Your task to perform on an android device: Go to accessibility settings Image 0: 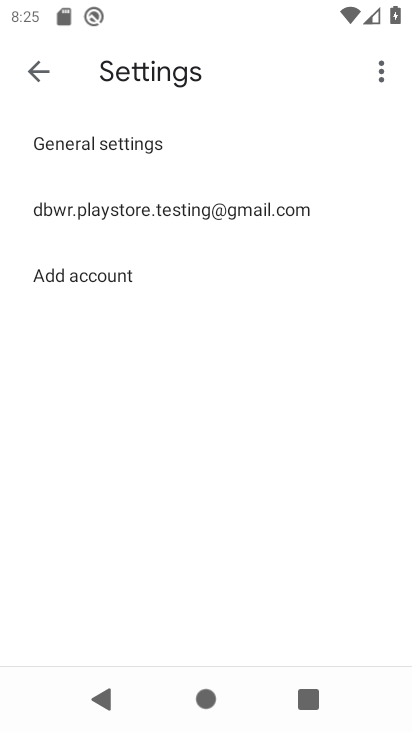
Step 0: press home button
Your task to perform on an android device: Go to accessibility settings Image 1: 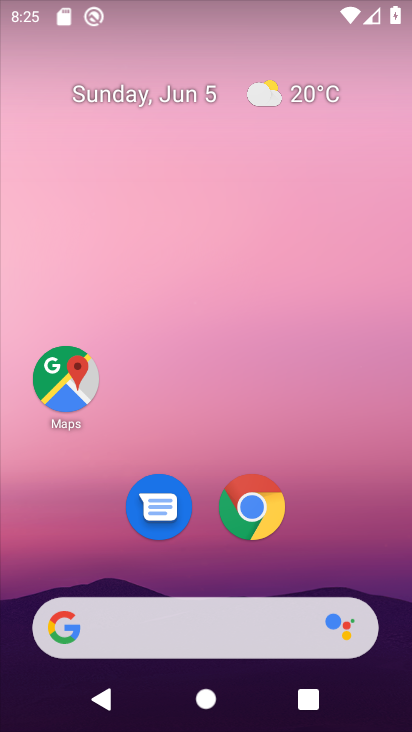
Step 1: drag from (181, 567) to (126, 111)
Your task to perform on an android device: Go to accessibility settings Image 2: 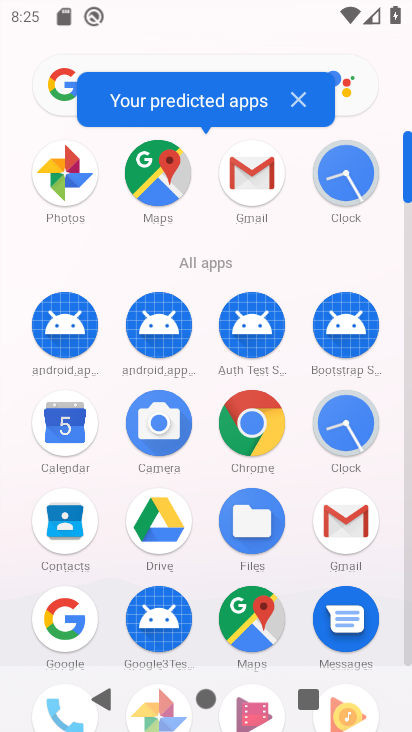
Step 2: drag from (213, 574) to (209, 11)
Your task to perform on an android device: Go to accessibility settings Image 3: 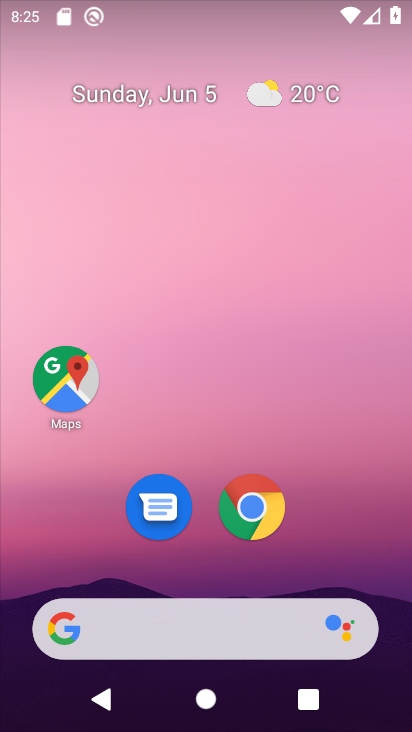
Step 3: drag from (207, 582) to (159, 21)
Your task to perform on an android device: Go to accessibility settings Image 4: 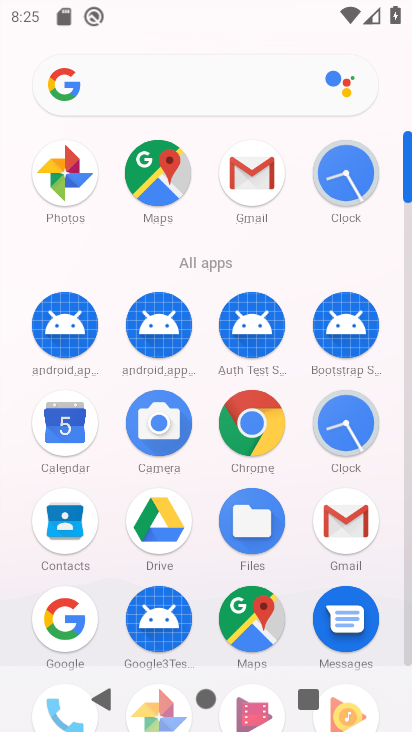
Step 4: drag from (207, 492) to (198, 6)
Your task to perform on an android device: Go to accessibility settings Image 5: 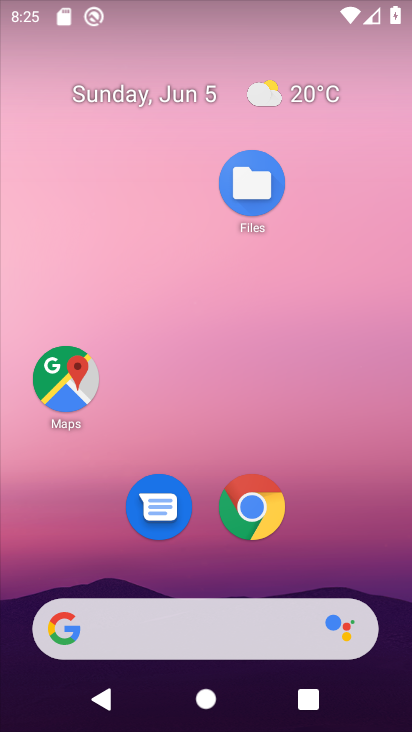
Step 5: drag from (215, 579) to (215, 10)
Your task to perform on an android device: Go to accessibility settings Image 6: 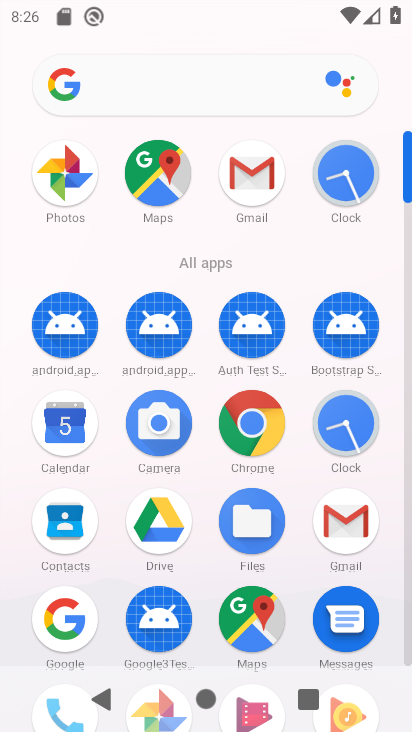
Step 6: click (407, 658)
Your task to perform on an android device: Go to accessibility settings Image 7: 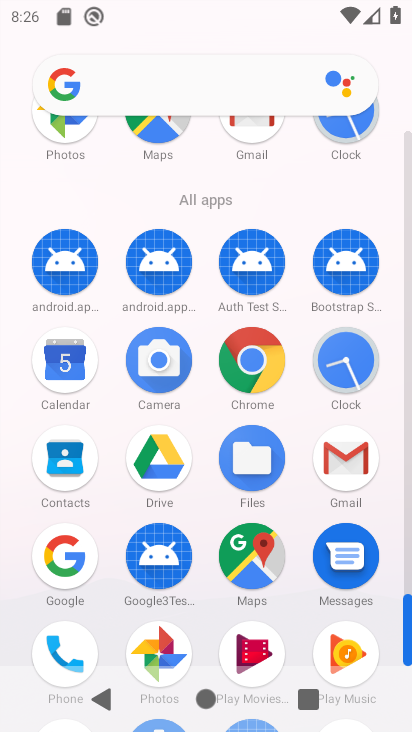
Step 7: drag from (209, 620) to (170, 225)
Your task to perform on an android device: Go to accessibility settings Image 8: 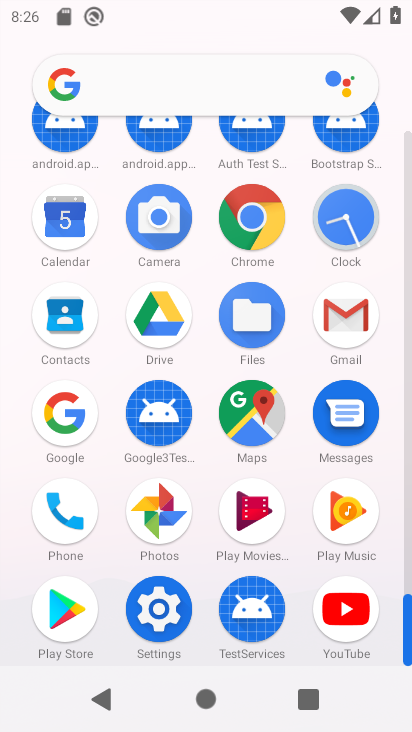
Step 8: click (140, 603)
Your task to perform on an android device: Go to accessibility settings Image 9: 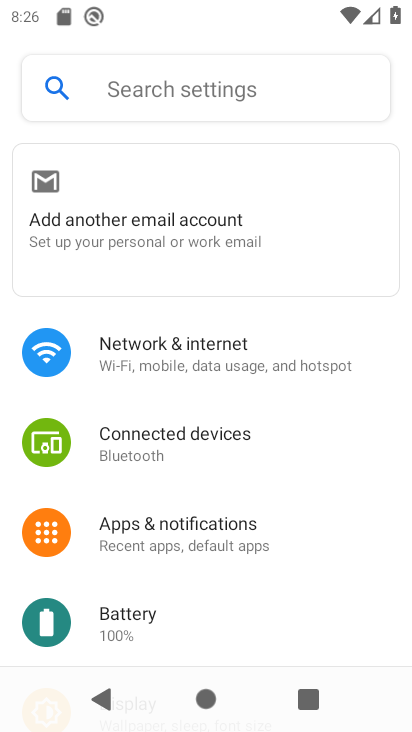
Step 9: drag from (140, 603) to (138, 53)
Your task to perform on an android device: Go to accessibility settings Image 10: 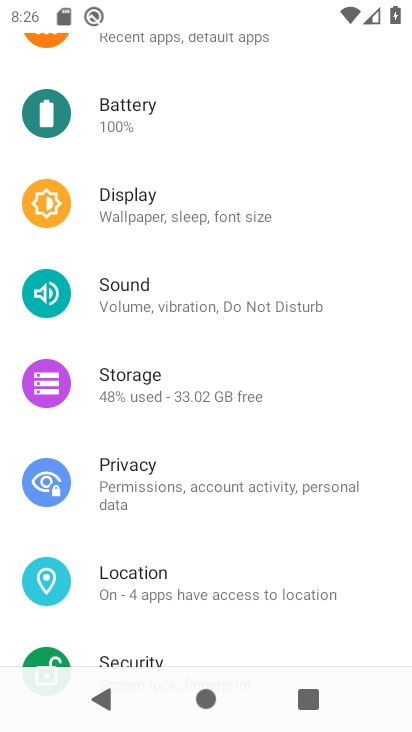
Step 10: drag from (203, 586) to (258, 27)
Your task to perform on an android device: Go to accessibility settings Image 11: 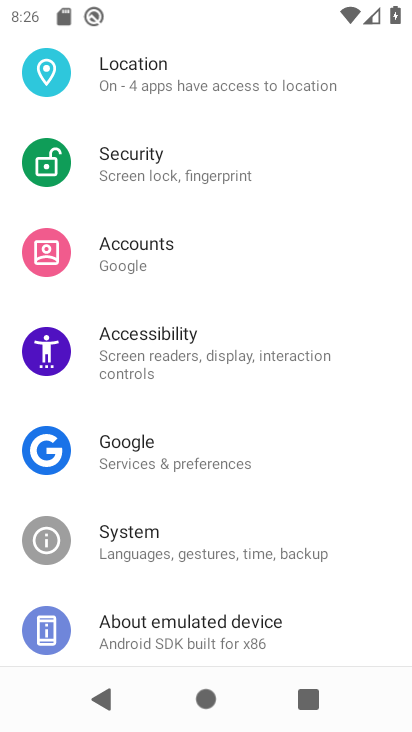
Step 11: click (227, 339)
Your task to perform on an android device: Go to accessibility settings Image 12: 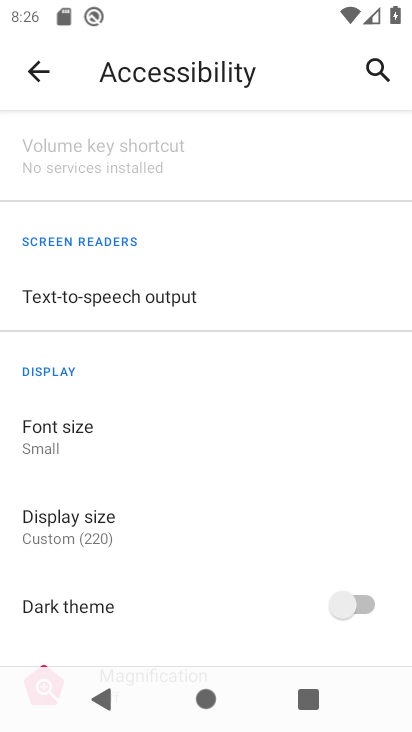
Step 12: task complete